Your task to perform on an android device: toggle notification dots Image 0: 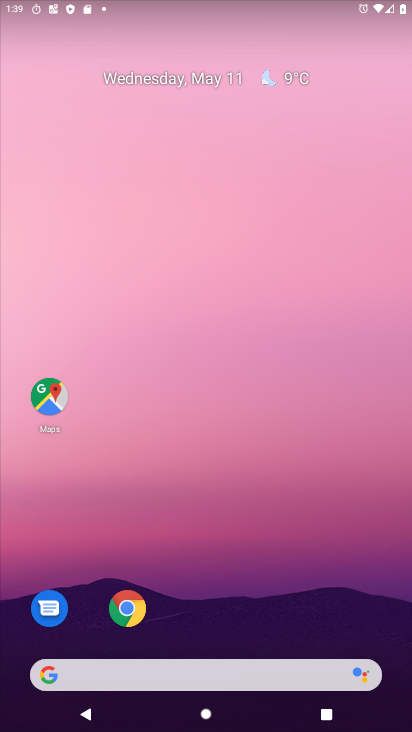
Step 0: drag from (256, 661) to (301, 4)
Your task to perform on an android device: toggle notification dots Image 1: 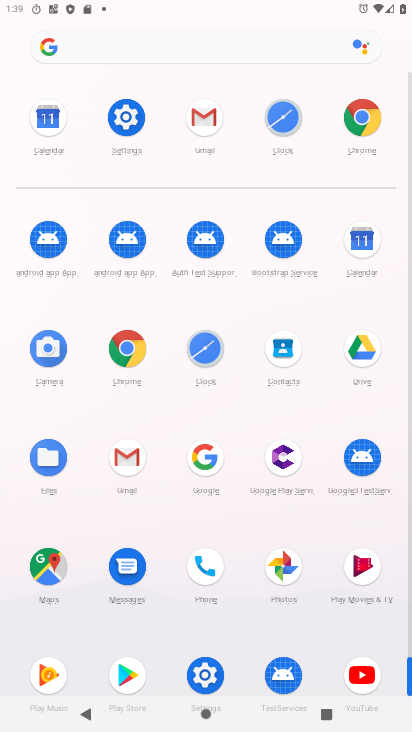
Step 1: click (203, 669)
Your task to perform on an android device: toggle notification dots Image 2: 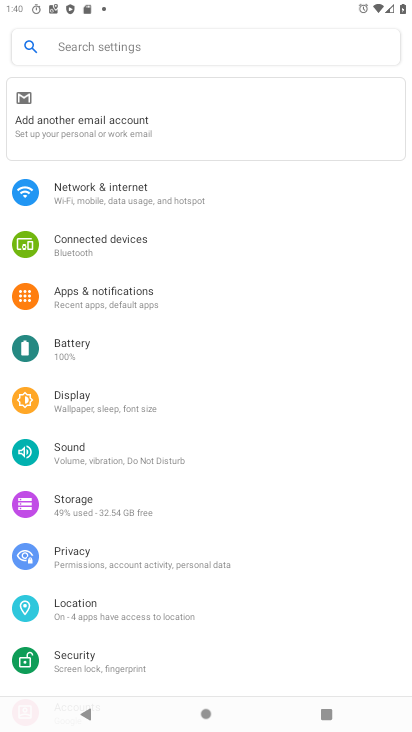
Step 2: click (135, 307)
Your task to perform on an android device: toggle notification dots Image 3: 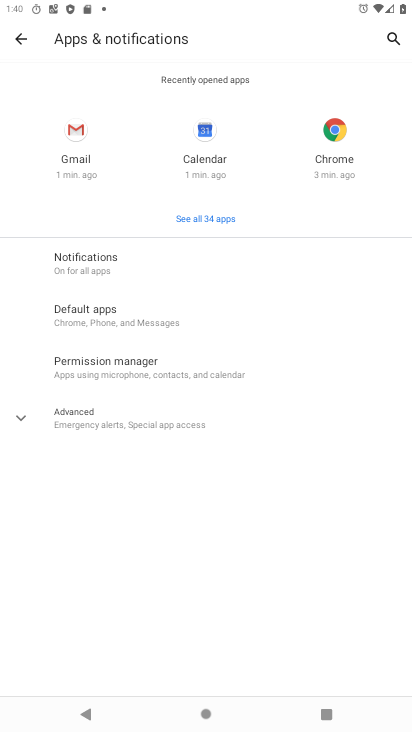
Step 3: click (140, 263)
Your task to perform on an android device: toggle notification dots Image 4: 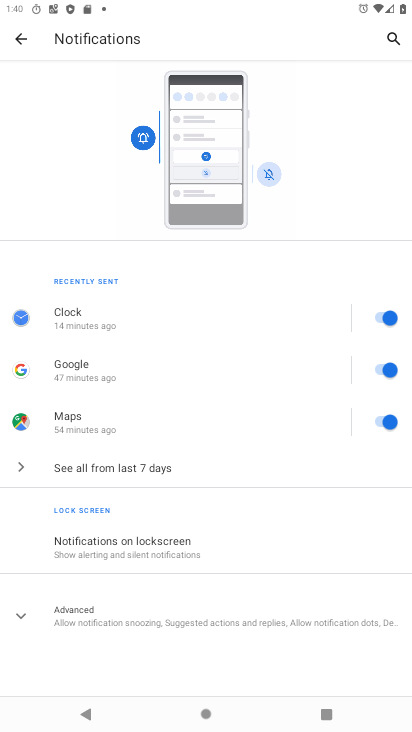
Step 4: click (150, 613)
Your task to perform on an android device: toggle notification dots Image 5: 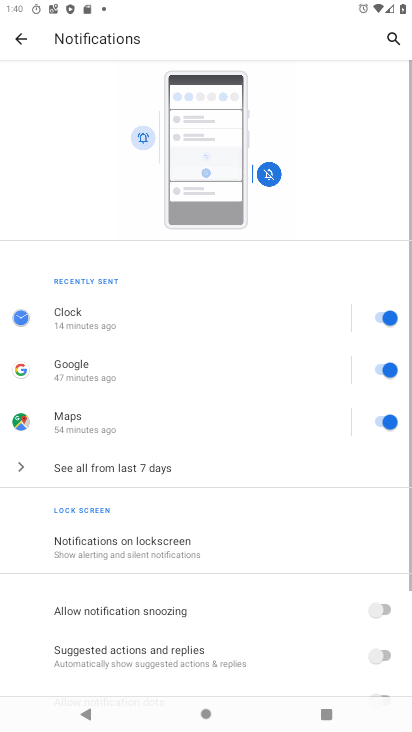
Step 5: drag from (148, 546) to (140, 254)
Your task to perform on an android device: toggle notification dots Image 6: 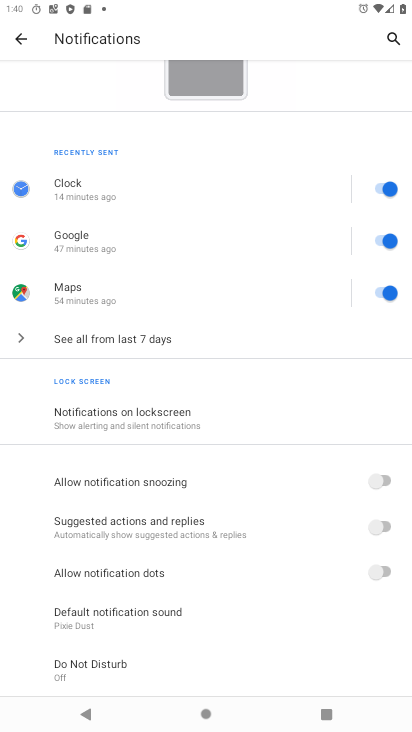
Step 6: click (385, 568)
Your task to perform on an android device: toggle notification dots Image 7: 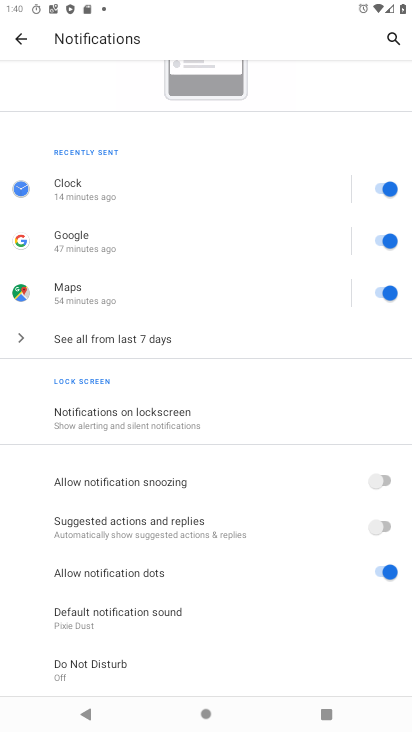
Step 7: task complete